Your task to perform on an android device: Open the clock Image 0: 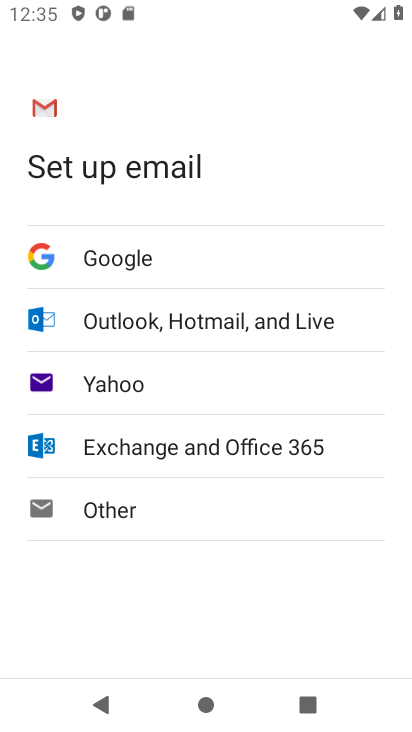
Step 0: press home button
Your task to perform on an android device: Open the clock Image 1: 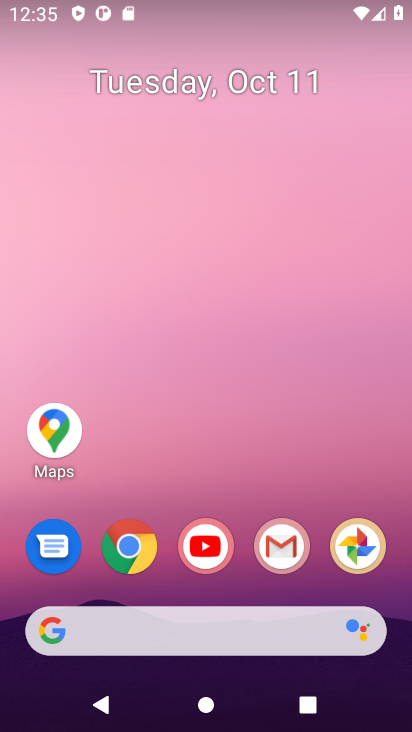
Step 1: drag from (139, 554) to (234, 229)
Your task to perform on an android device: Open the clock Image 2: 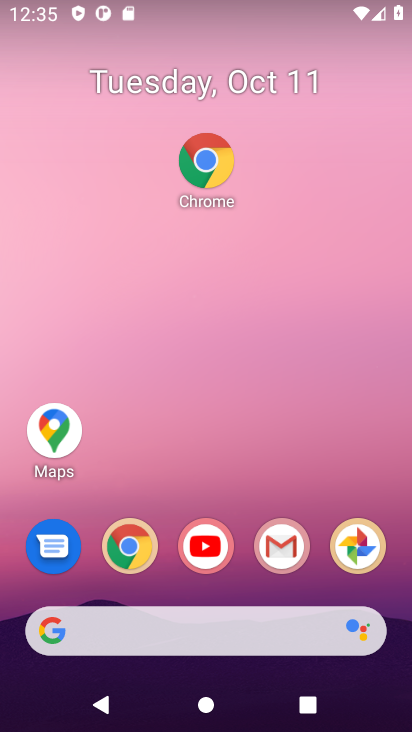
Step 2: drag from (200, 193) to (183, 294)
Your task to perform on an android device: Open the clock Image 3: 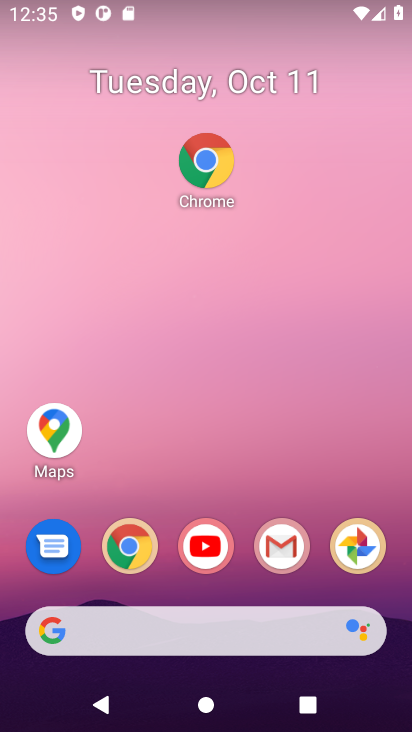
Step 3: drag from (284, 673) to (293, 246)
Your task to perform on an android device: Open the clock Image 4: 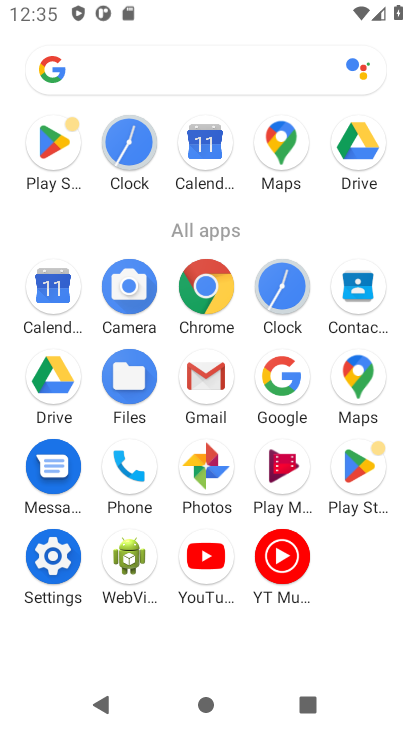
Step 4: click (276, 298)
Your task to perform on an android device: Open the clock Image 5: 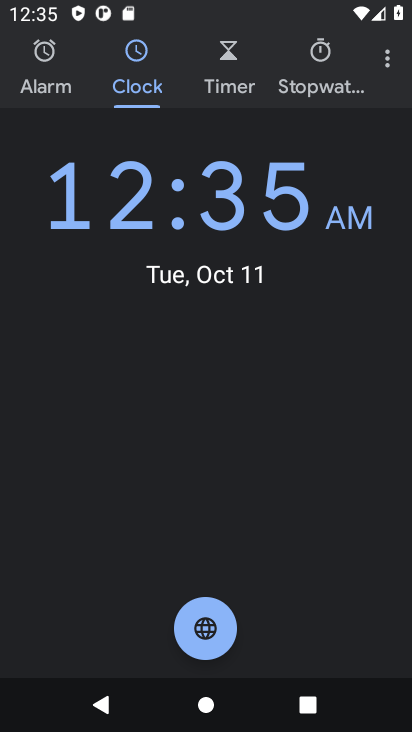
Step 5: click (291, 505)
Your task to perform on an android device: Open the clock Image 6: 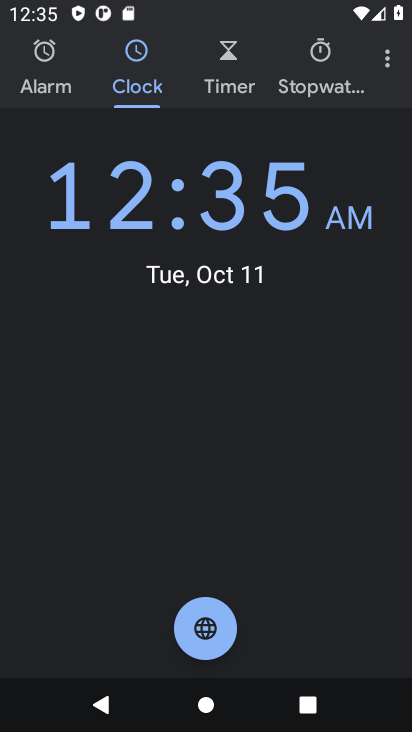
Step 6: task complete